Your task to perform on an android device: turn off priority inbox in the gmail app Image 0: 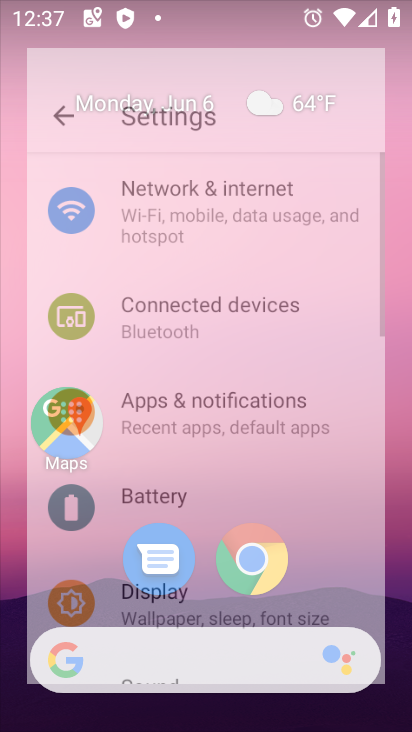
Step 0: drag from (258, 683) to (328, 102)
Your task to perform on an android device: turn off priority inbox in the gmail app Image 1: 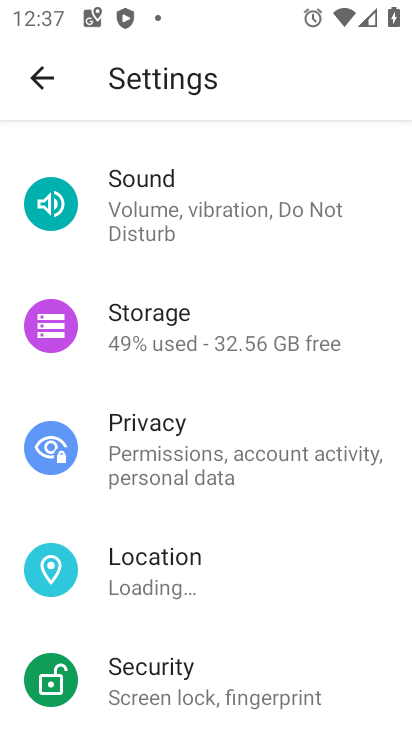
Step 1: press home button
Your task to perform on an android device: turn off priority inbox in the gmail app Image 2: 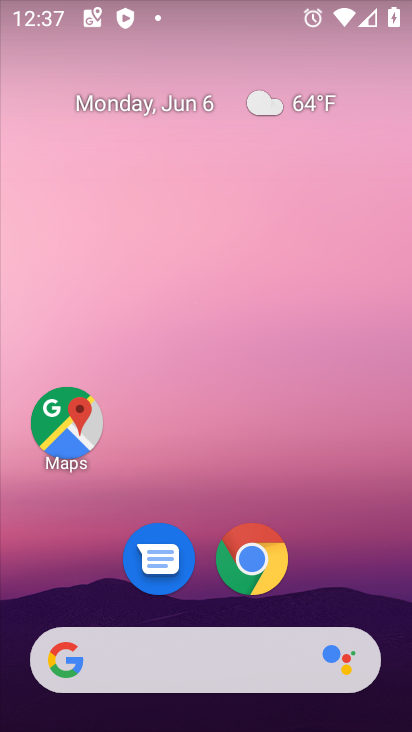
Step 2: drag from (258, 719) to (350, 227)
Your task to perform on an android device: turn off priority inbox in the gmail app Image 3: 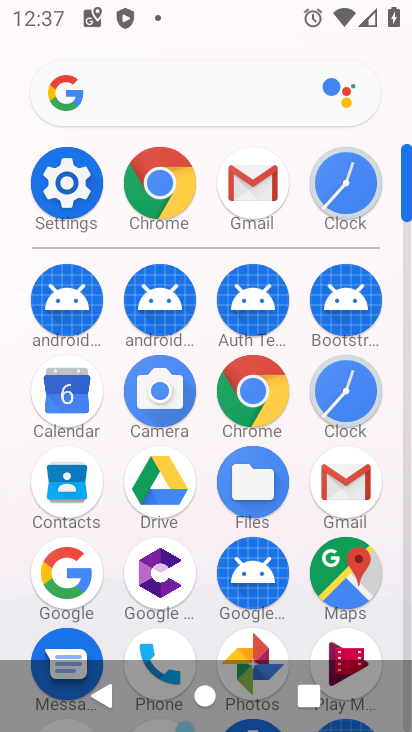
Step 3: click (237, 198)
Your task to perform on an android device: turn off priority inbox in the gmail app Image 4: 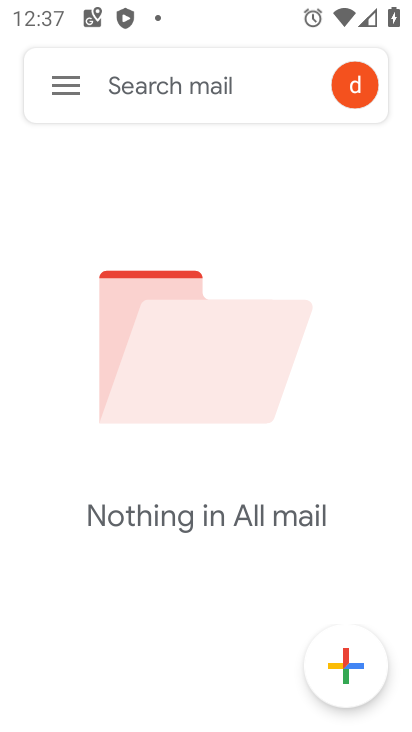
Step 4: click (63, 102)
Your task to perform on an android device: turn off priority inbox in the gmail app Image 5: 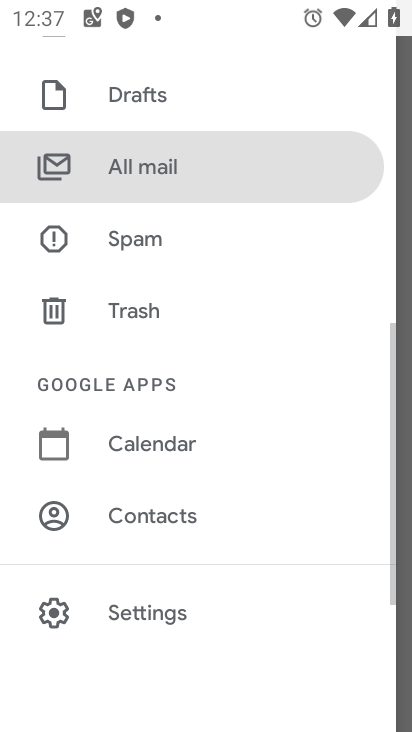
Step 5: click (172, 621)
Your task to perform on an android device: turn off priority inbox in the gmail app Image 6: 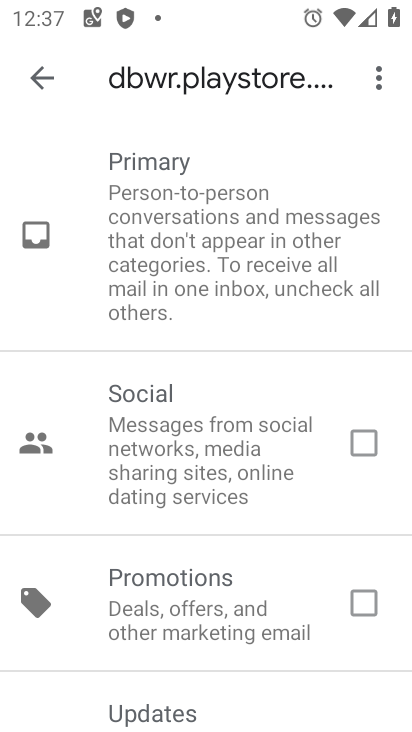
Step 6: click (24, 65)
Your task to perform on an android device: turn off priority inbox in the gmail app Image 7: 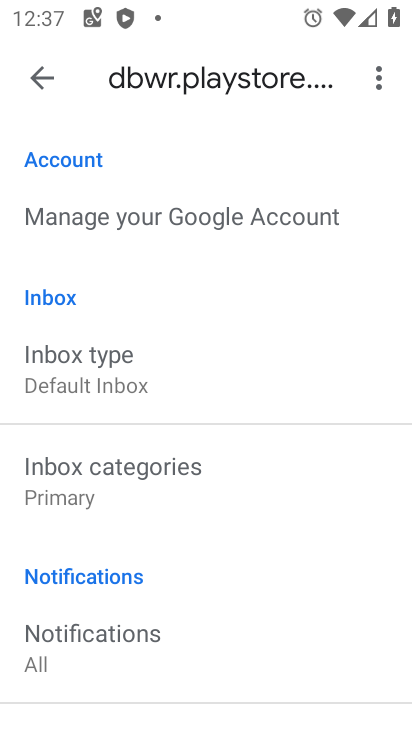
Step 7: click (123, 375)
Your task to perform on an android device: turn off priority inbox in the gmail app Image 8: 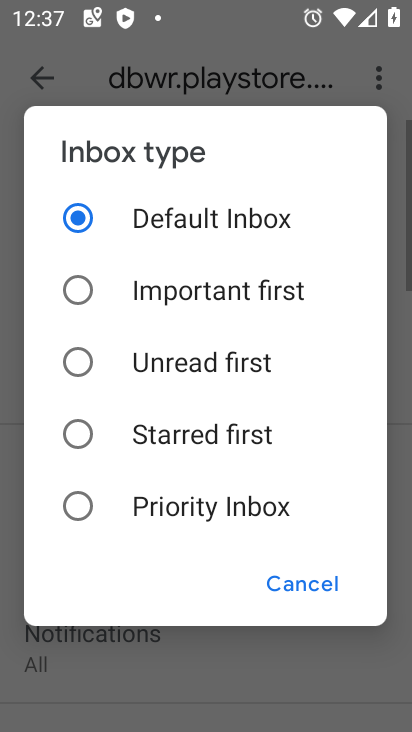
Step 8: task complete